Your task to perform on an android device: Turn on the flashlight Image 0: 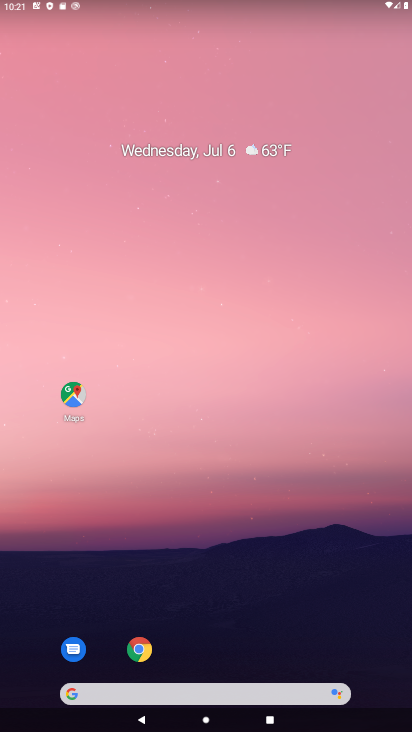
Step 0: press home button
Your task to perform on an android device: Turn on the flashlight Image 1: 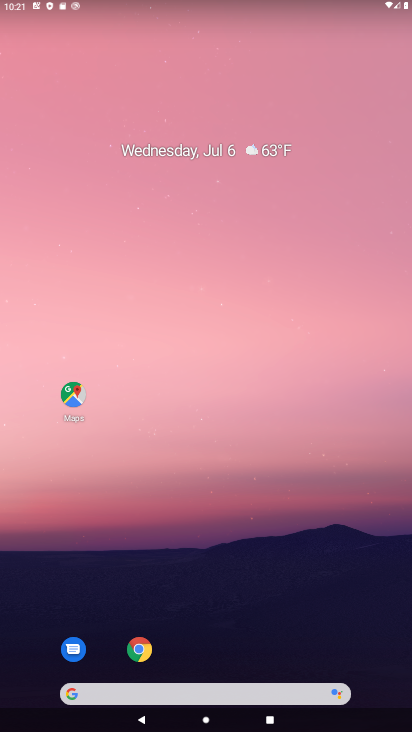
Step 1: task complete